Your task to perform on an android device: clear all cookies in the chrome app Image 0: 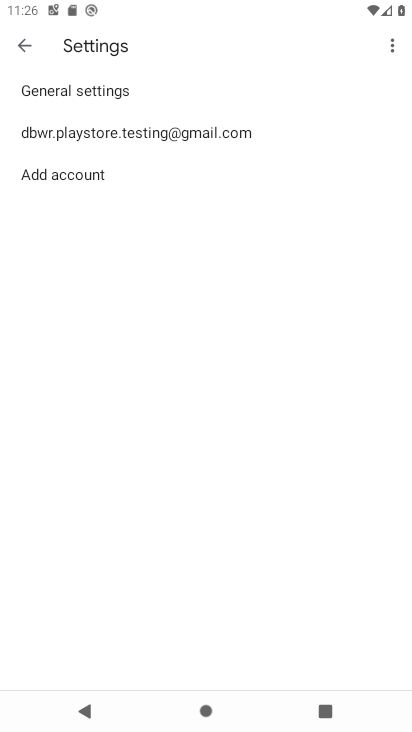
Step 0: press home button
Your task to perform on an android device: clear all cookies in the chrome app Image 1: 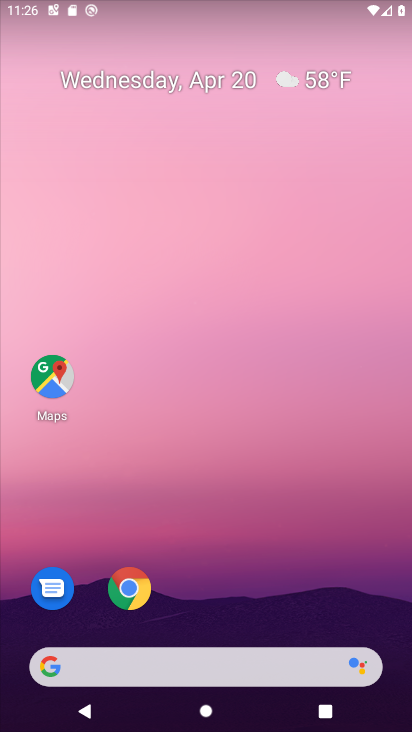
Step 1: click (125, 594)
Your task to perform on an android device: clear all cookies in the chrome app Image 2: 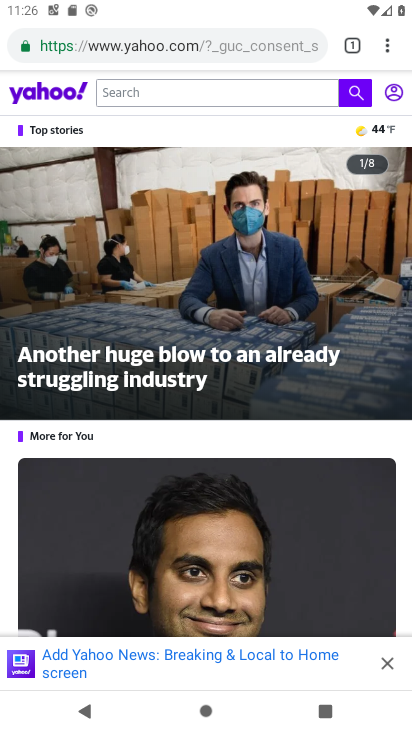
Step 2: click (389, 51)
Your task to perform on an android device: clear all cookies in the chrome app Image 3: 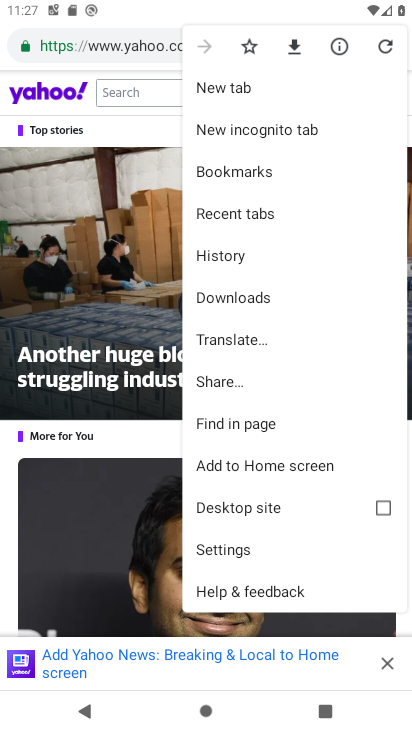
Step 3: click (266, 258)
Your task to perform on an android device: clear all cookies in the chrome app Image 4: 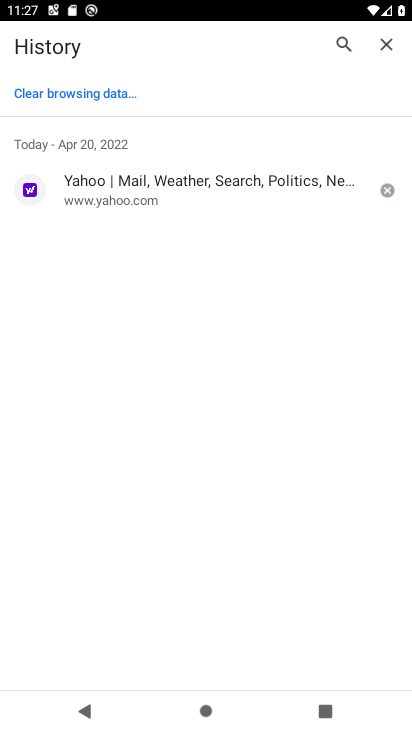
Step 4: click (119, 79)
Your task to perform on an android device: clear all cookies in the chrome app Image 5: 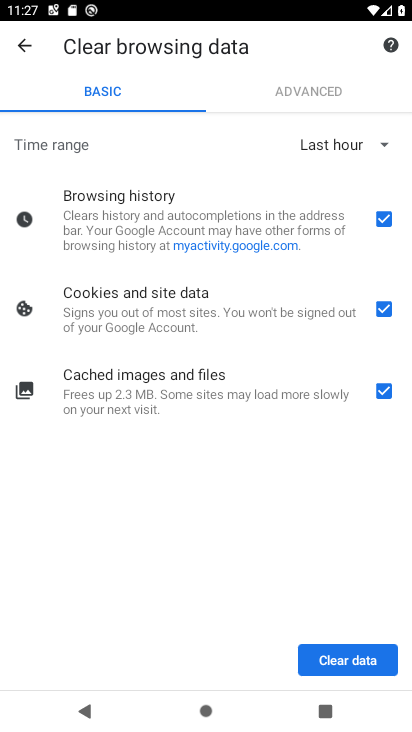
Step 5: click (386, 228)
Your task to perform on an android device: clear all cookies in the chrome app Image 6: 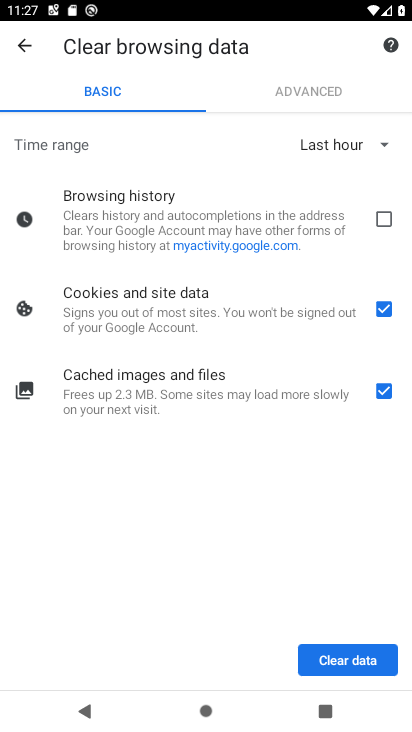
Step 6: click (379, 395)
Your task to perform on an android device: clear all cookies in the chrome app Image 7: 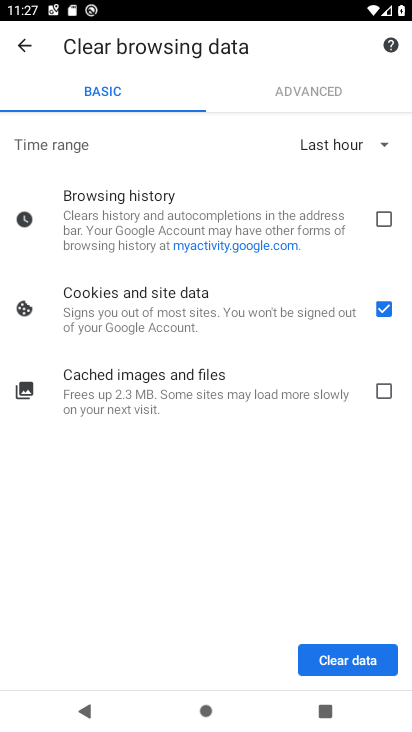
Step 7: task complete